Your task to perform on an android device: Open Maps and search for coffee Image 0: 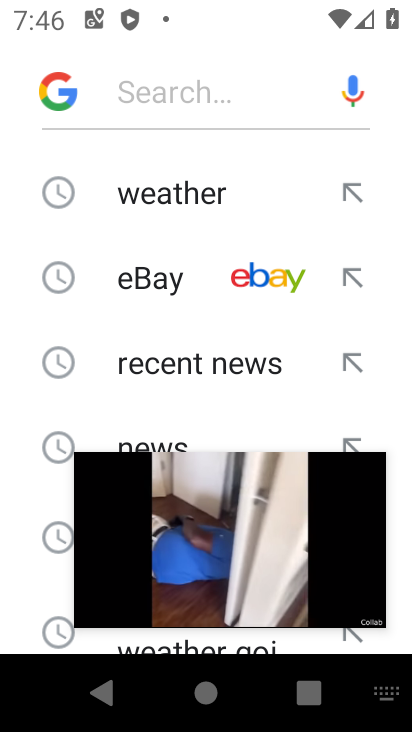
Step 0: click (347, 486)
Your task to perform on an android device: Open Maps and search for coffee Image 1: 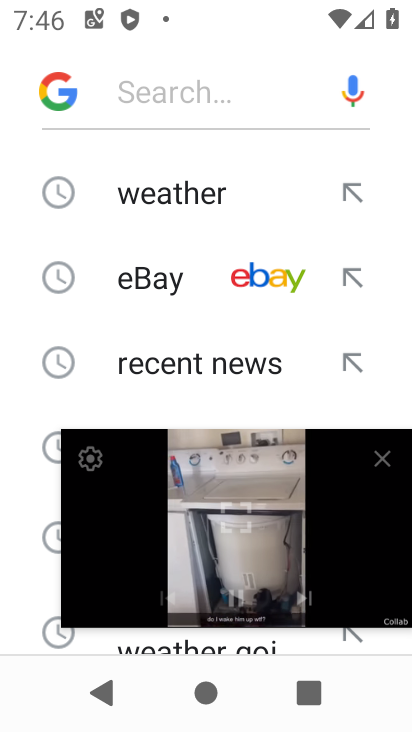
Step 1: drag from (364, 454) to (278, 285)
Your task to perform on an android device: Open Maps and search for coffee Image 2: 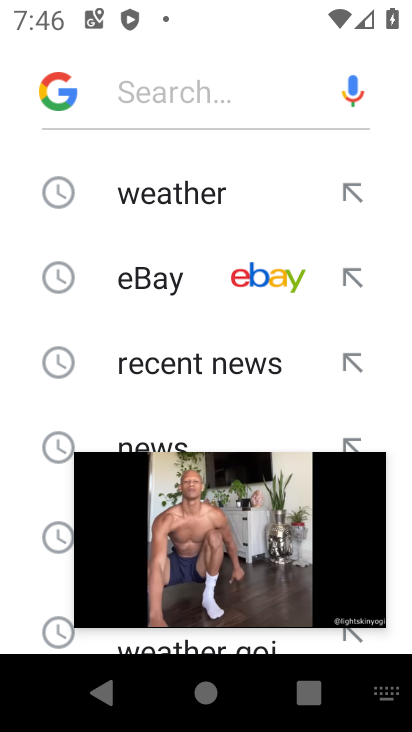
Step 2: drag from (350, 473) to (311, 721)
Your task to perform on an android device: Open Maps and search for coffee Image 3: 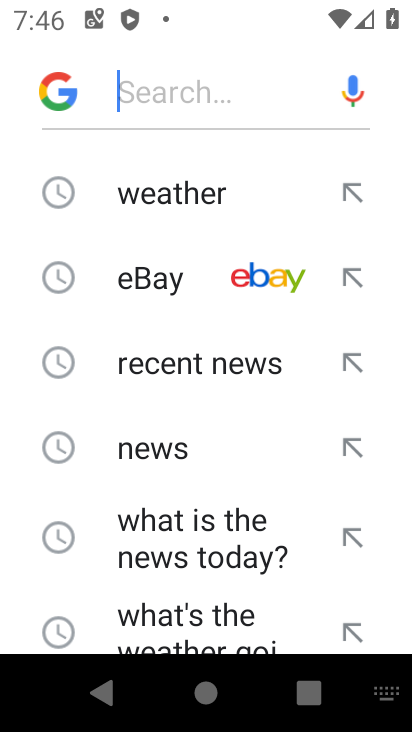
Step 3: press back button
Your task to perform on an android device: Open Maps and search for coffee Image 4: 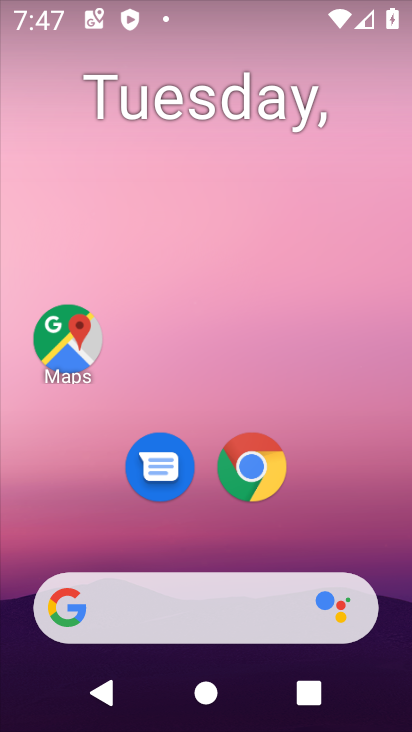
Step 4: click (66, 348)
Your task to perform on an android device: Open Maps and search for coffee Image 5: 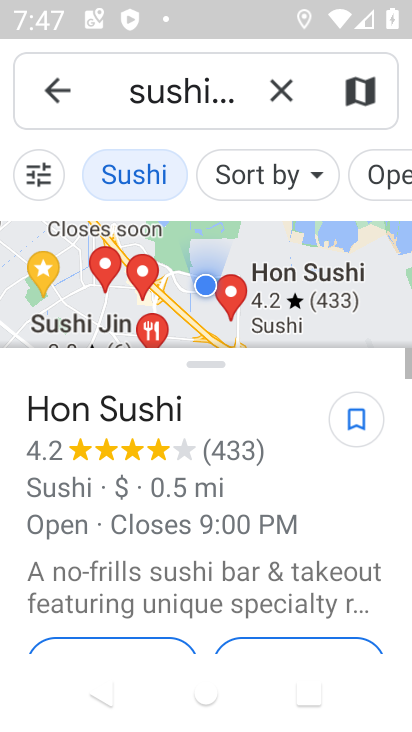
Step 5: click (277, 92)
Your task to perform on an android device: Open Maps and search for coffee Image 6: 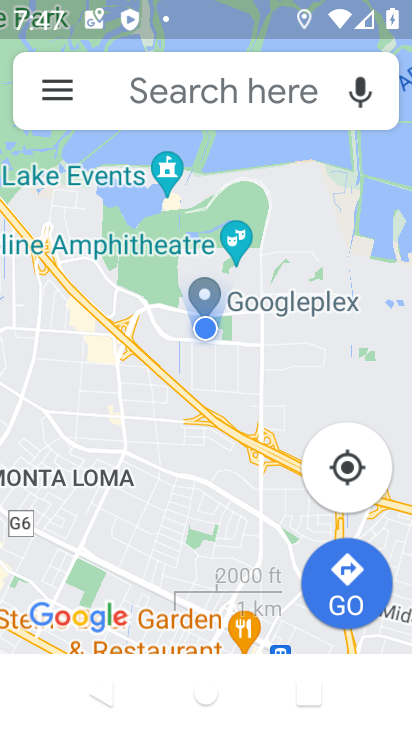
Step 6: click (219, 109)
Your task to perform on an android device: Open Maps and search for coffee Image 7: 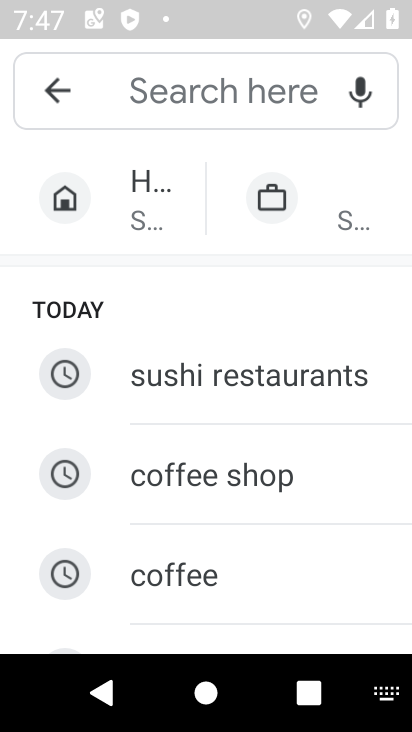
Step 7: click (194, 577)
Your task to perform on an android device: Open Maps and search for coffee Image 8: 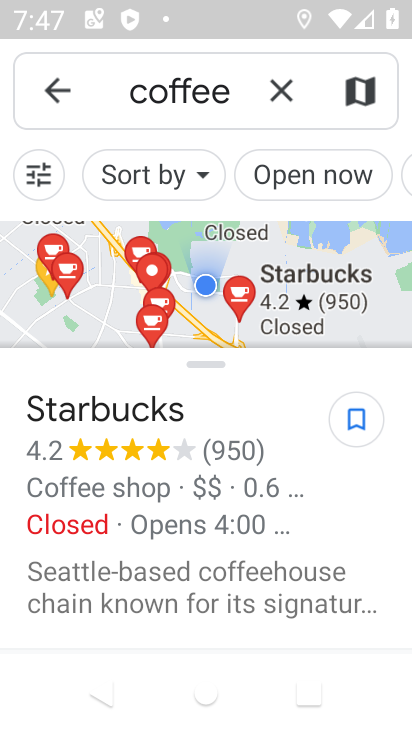
Step 8: task complete